Your task to perform on an android device: turn on priority inbox in the gmail app Image 0: 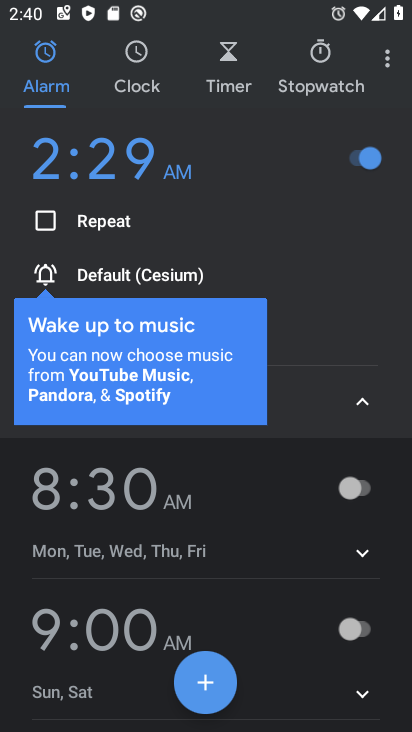
Step 0: press back button
Your task to perform on an android device: turn on priority inbox in the gmail app Image 1: 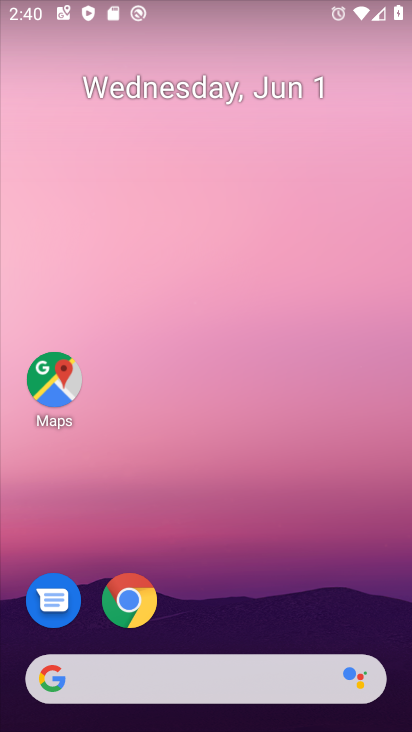
Step 1: drag from (217, 570) to (1, 506)
Your task to perform on an android device: turn on priority inbox in the gmail app Image 2: 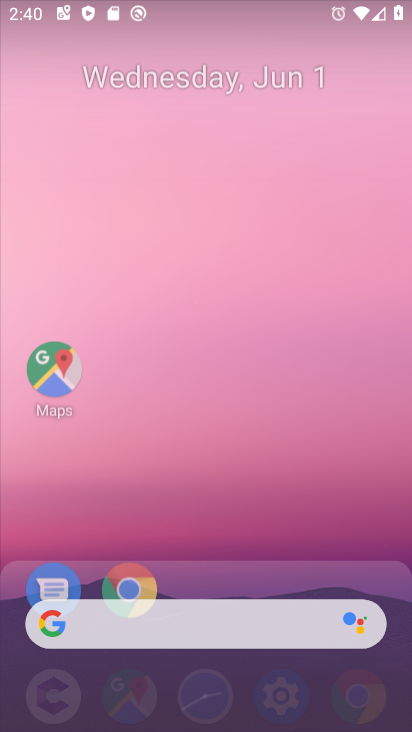
Step 2: drag from (15, 542) to (17, 233)
Your task to perform on an android device: turn on priority inbox in the gmail app Image 3: 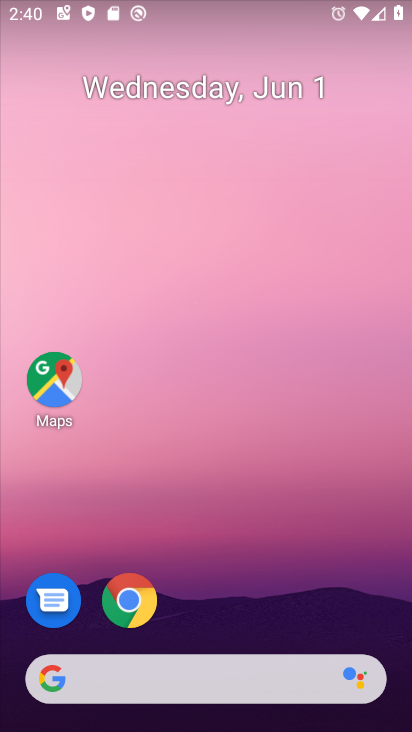
Step 3: drag from (396, 708) to (278, 23)
Your task to perform on an android device: turn on priority inbox in the gmail app Image 4: 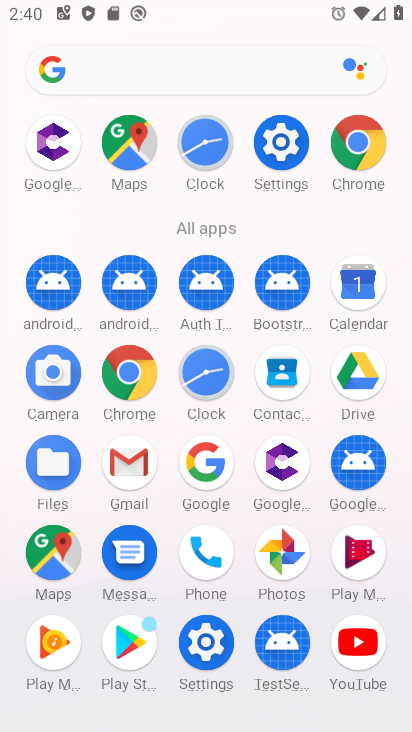
Step 4: drag from (2, 571) to (4, 299)
Your task to perform on an android device: turn on priority inbox in the gmail app Image 5: 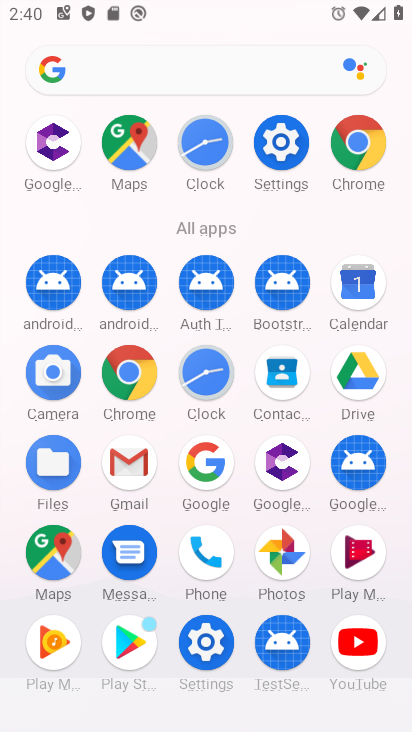
Step 5: click (125, 456)
Your task to perform on an android device: turn on priority inbox in the gmail app Image 6: 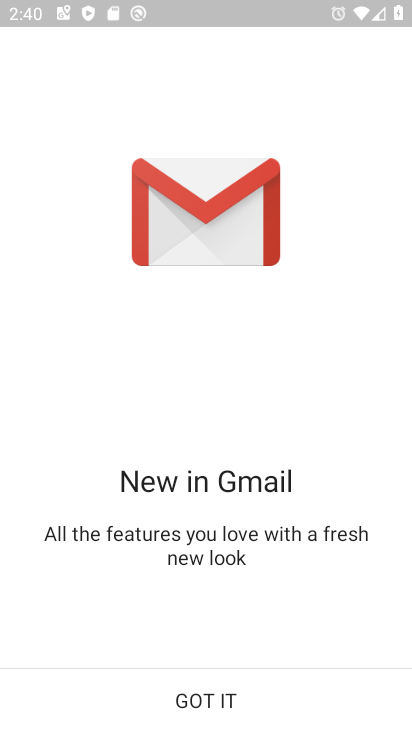
Step 6: click (191, 698)
Your task to perform on an android device: turn on priority inbox in the gmail app Image 7: 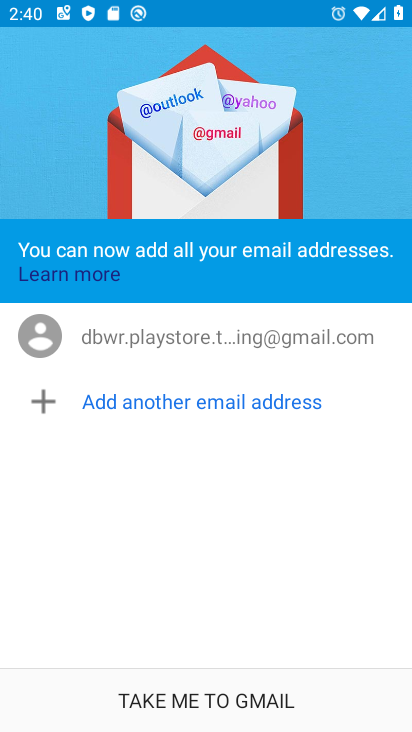
Step 7: click (188, 704)
Your task to perform on an android device: turn on priority inbox in the gmail app Image 8: 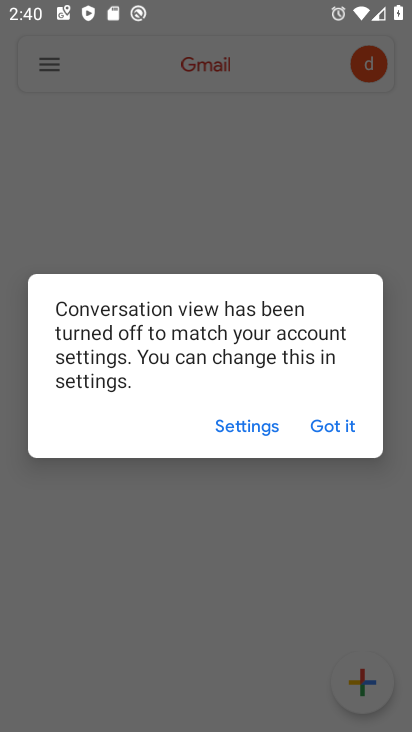
Step 8: click (326, 429)
Your task to perform on an android device: turn on priority inbox in the gmail app Image 9: 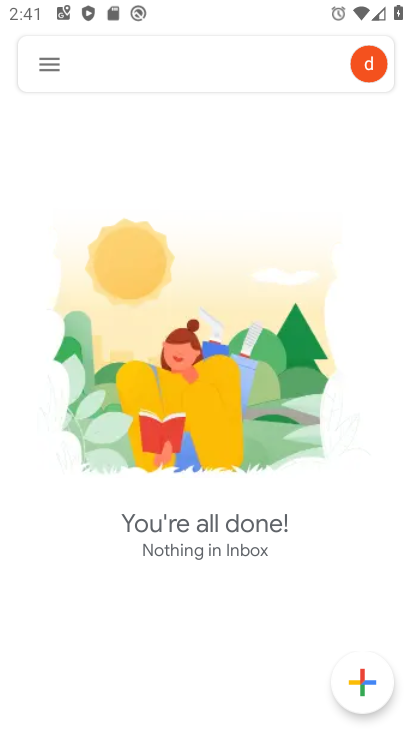
Step 9: click (52, 57)
Your task to perform on an android device: turn on priority inbox in the gmail app Image 10: 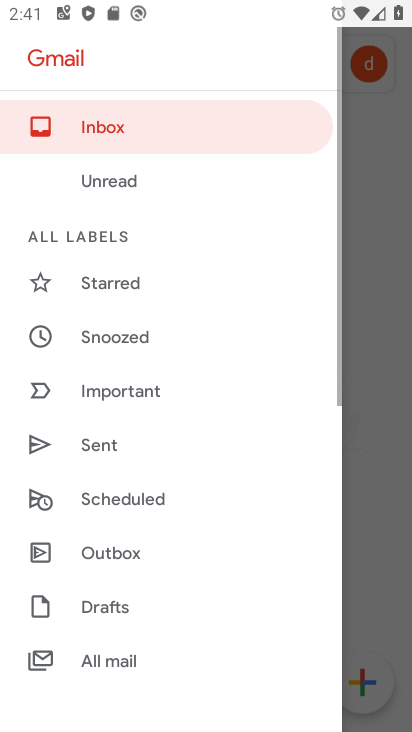
Step 10: drag from (195, 581) to (172, 168)
Your task to perform on an android device: turn on priority inbox in the gmail app Image 11: 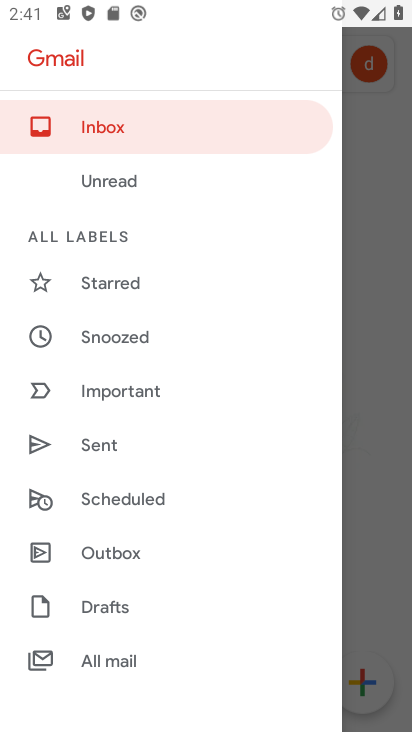
Step 11: drag from (158, 621) to (169, 141)
Your task to perform on an android device: turn on priority inbox in the gmail app Image 12: 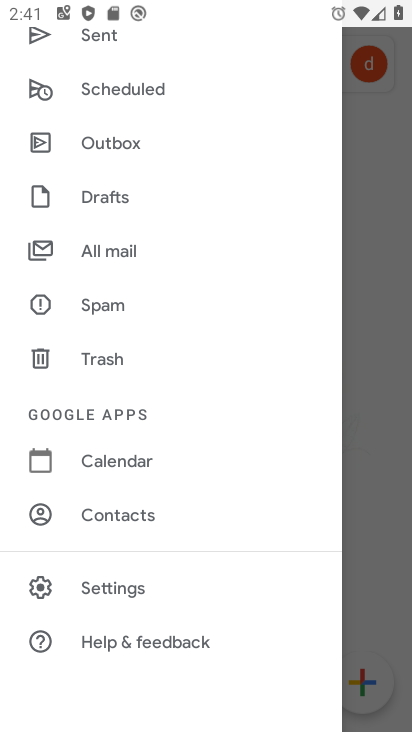
Step 12: click (114, 590)
Your task to perform on an android device: turn on priority inbox in the gmail app Image 13: 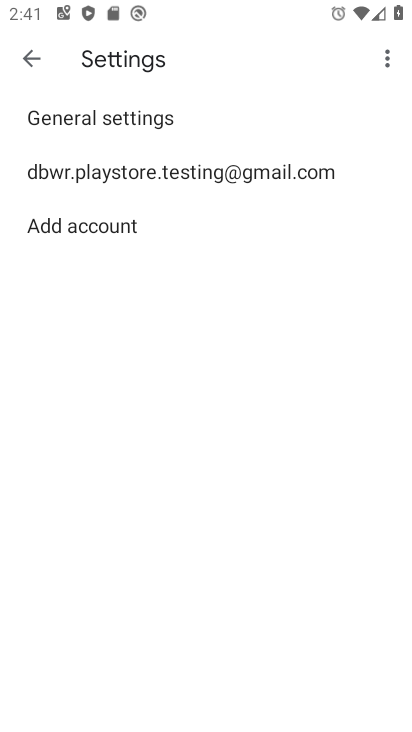
Step 13: click (231, 165)
Your task to perform on an android device: turn on priority inbox in the gmail app Image 14: 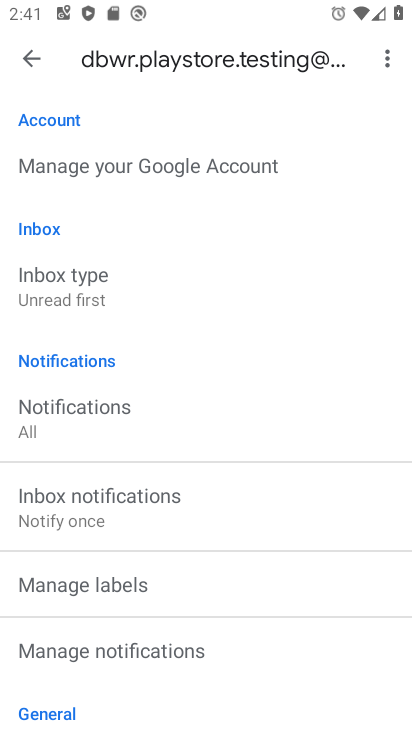
Step 14: click (114, 291)
Your task to perform on an android device: turn on priority inbox in the gmail app Image 15: 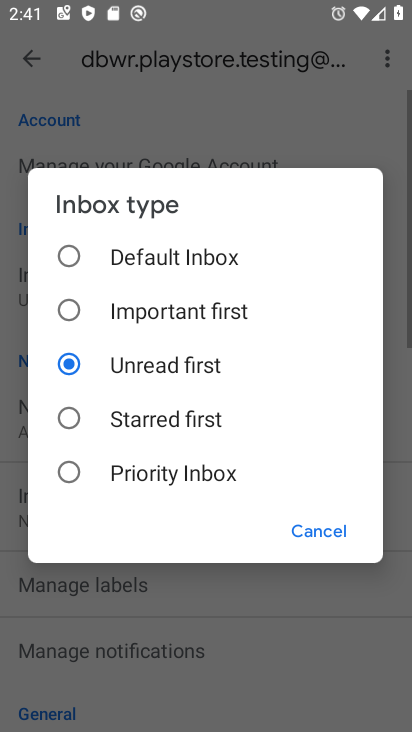
Step 15: click (122, 258)
Your task to perform on an android device: turn on priority inbox in the gmail app Image 16: 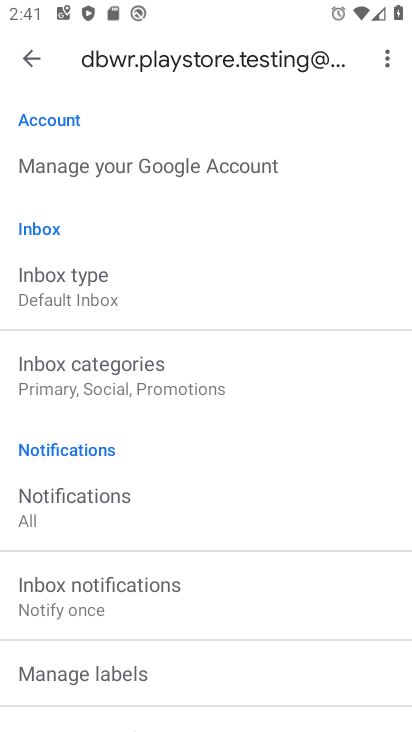
Step 16: click (120, 276)
Your task to perform on an android device: turn on priority inbox in the gmail app Image 17: 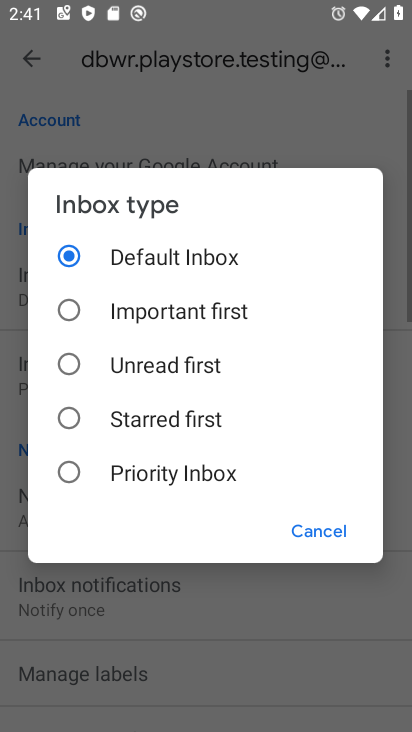
Step 17: click (208, 465)
Your task to perform on an android device: turn on priority inbox in the gmail app Image 18: 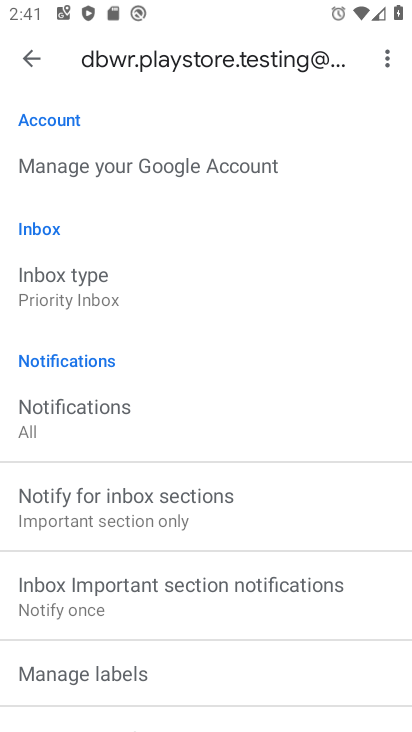
Step 18: task complete